Your task to perform on an android device: turn off picture-in-picture Image 0: 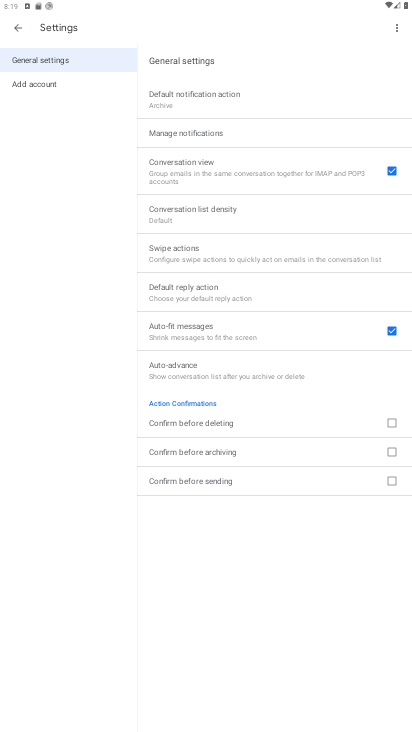
Step 0: press home button
Your task to perform on an android device: turn off picture-in-picture Image 1: 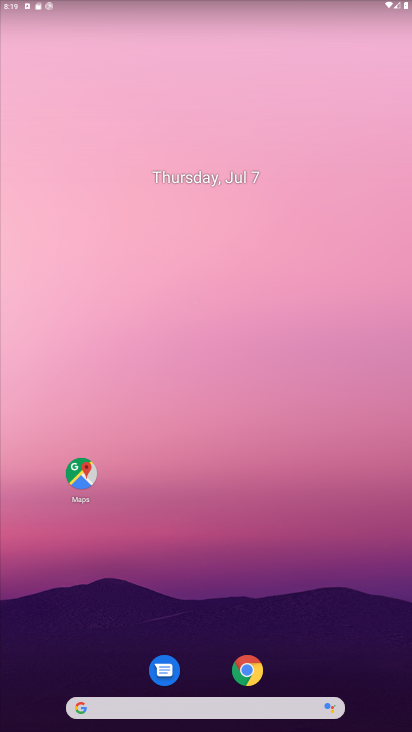
Step 1: drag from (30, 652) to (328, 14)
Your task to perform on an android device: turn off picture-in-picture Image 2: 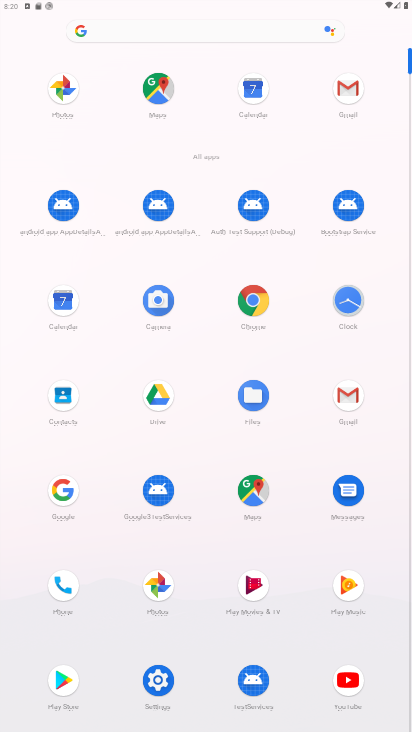
Step 2: click (151, 685)
Your task to perform on an android device: turn off picture-in-picture Image 3: 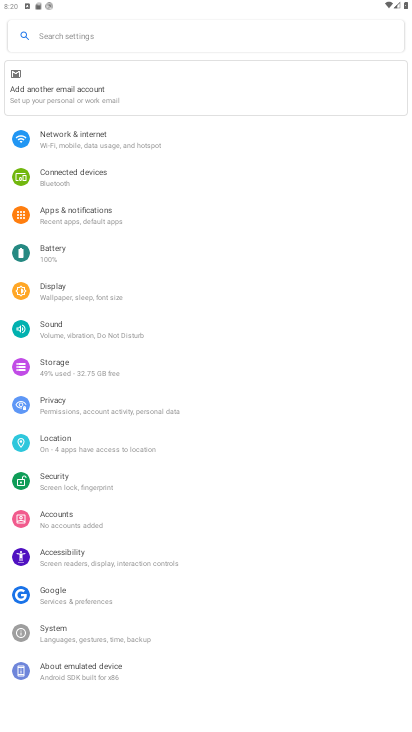
Step 3: click (103, 446)
Your task to perform on an android device: turn off picture-in-picture Image 4: 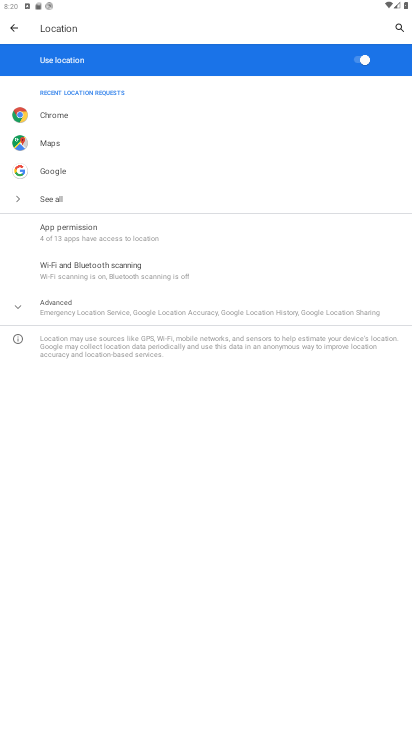
Step 4: click (134, 238)
Your task to perform on an android device: turn off picture-in-picture Image 5: 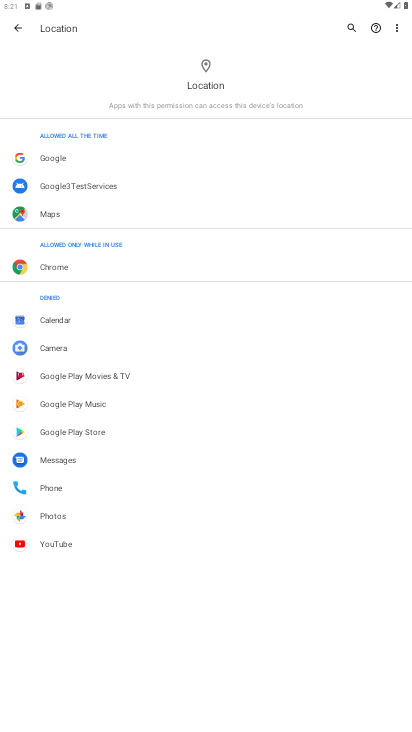
Step 5: task complete